Your task to perform on an android device: Show me popular games on the Play Store Image 0: 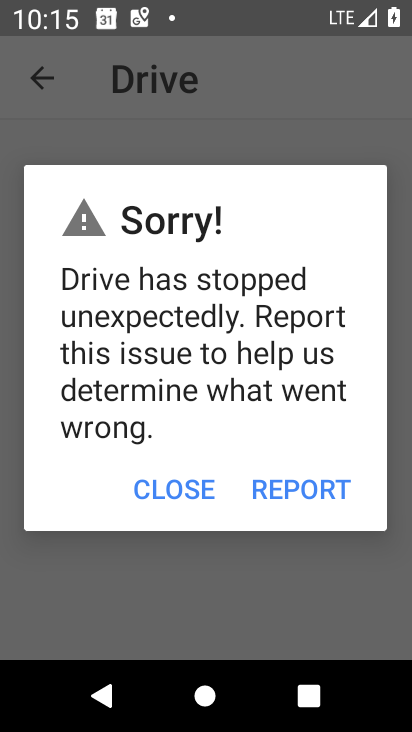
Step 0: press back button
Your task to perform on an android device: Show me popular games on the Play Store Image 1: 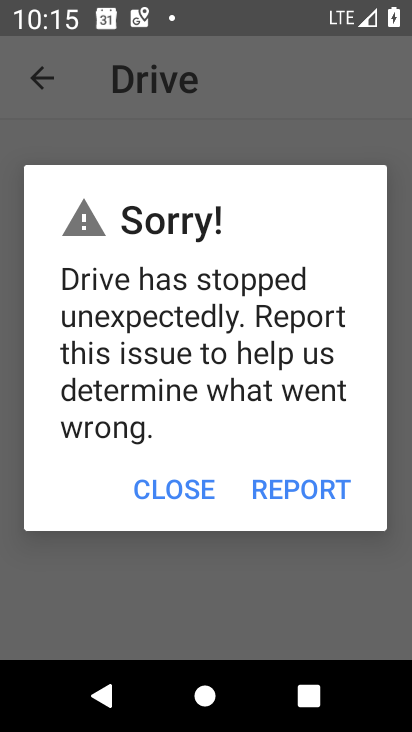
Step 1: press home button
Your task to perform on an android device: Show me popular games on the Play Store Image 2: 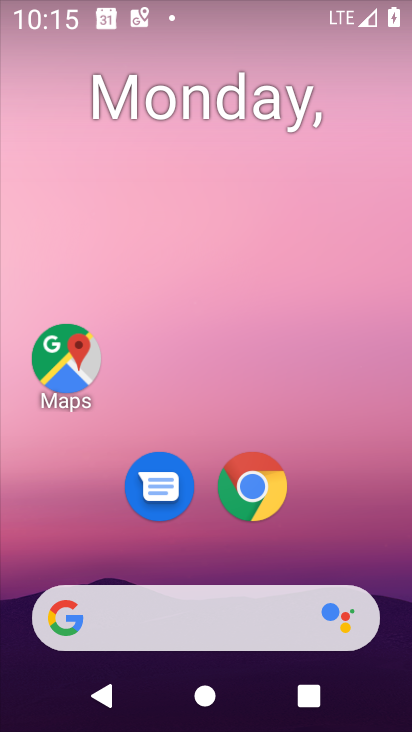
Step 2: drag from (384, 526) to (290, 42)
Your task to perform on an android device: Show me popular games on the Play Store Image 3: 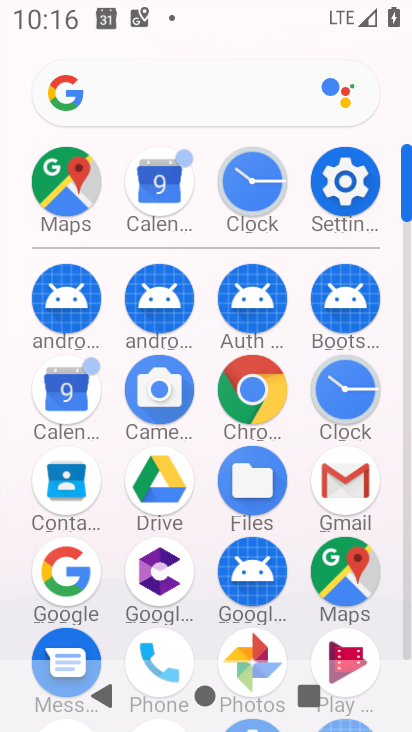
Step 3: drag from (19, 600) to (4, 210)
Your task to perform on an android device: Show me popular games on the Play Store Image 4: 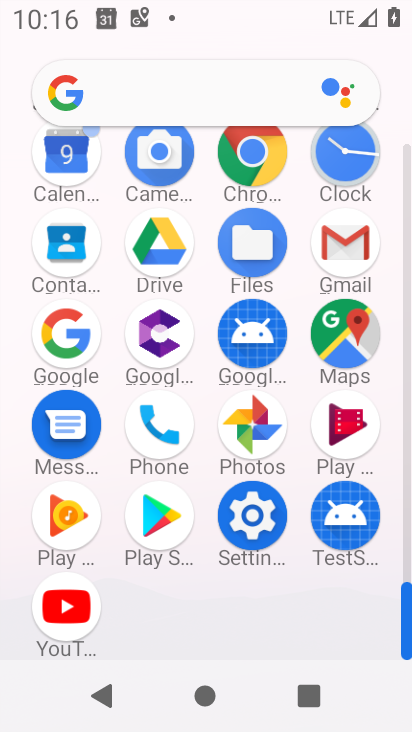
Step 4: drag from (18, 242) to (13, 525)
Your task to perform on an android device: Show me popular games on the Play Store Image 5: 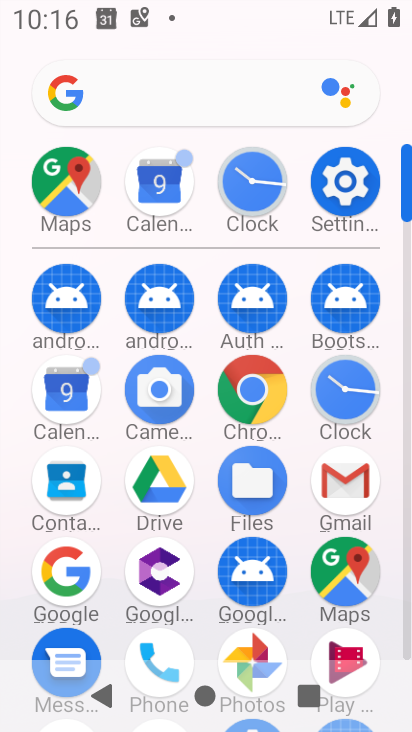
Step 5: drag from (12, 574) to (10, 317)
Your task to perform on an android device: Show me popular games on the Play Store Image 6: 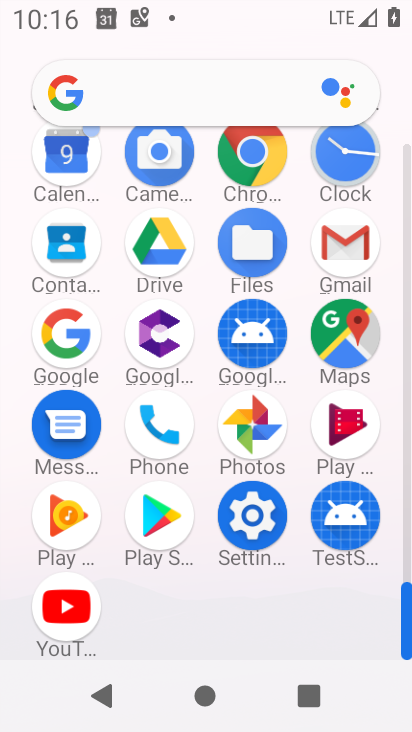
Step 6: click (161, 512)
Your task to perform on an android device: Show me popular games on the Play Store Image 7: 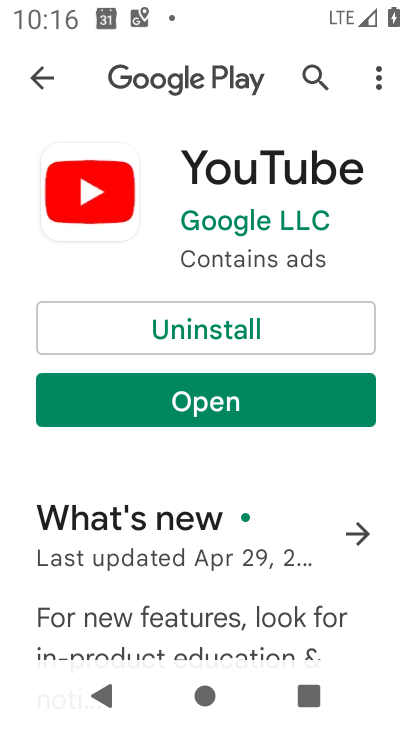
Step 7: click (21, 75)
Your task to perform on an android device: Show me popular games on the Play Store Image 8: 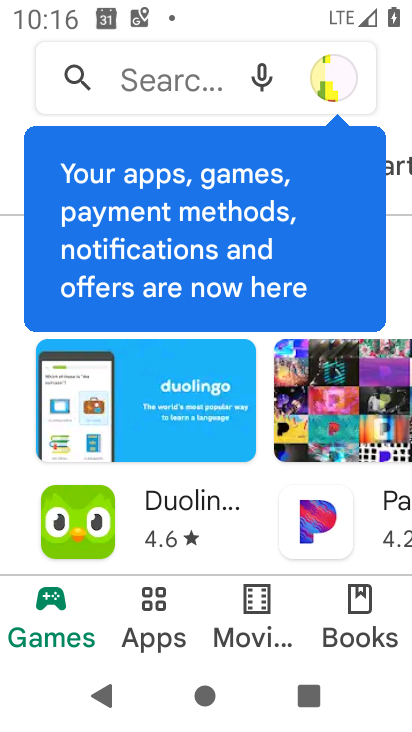
Step 8: drag from (128, 520) to (143, 203)
Your task to perform on an android device: Show me popular games on the Play Store Image 9: 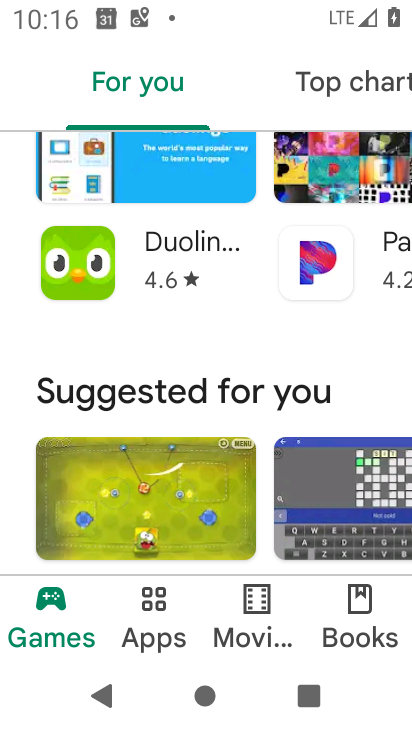
Step 9: drag from (285, 218) to (286, 473)
Your task to perform on an android device: Show me popular games on the Play Store Image 10: 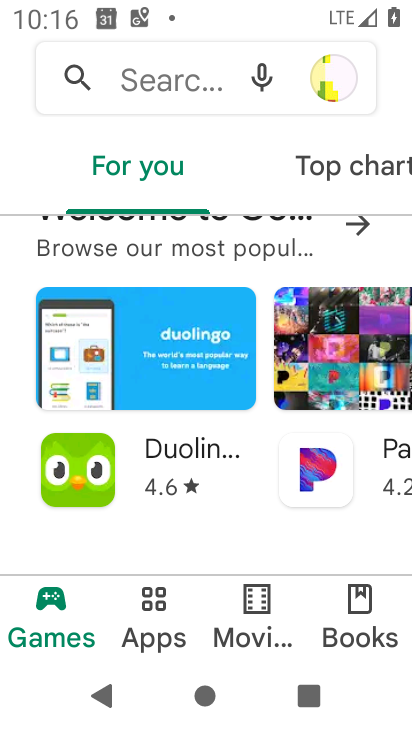
Step 10: drag from (347, 340) to (33, 372)
Your task to perform on an android device: Show me popular games on the Play Store Image 11: 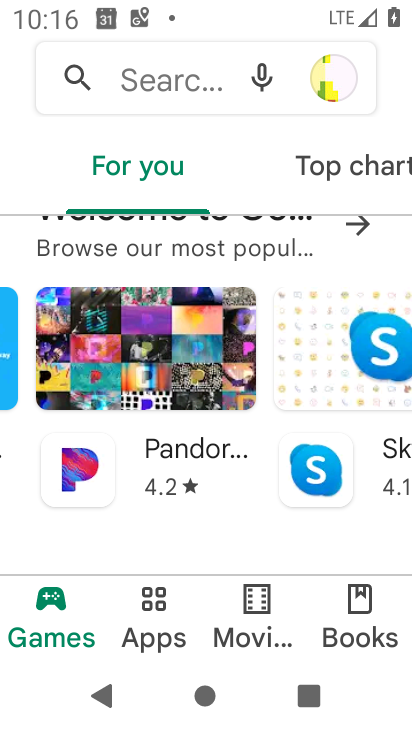
Step 11: drag from (355, 357) to (4, 366)
Your task to perform on an android device: Show me popular games on the Play Store Image 12: 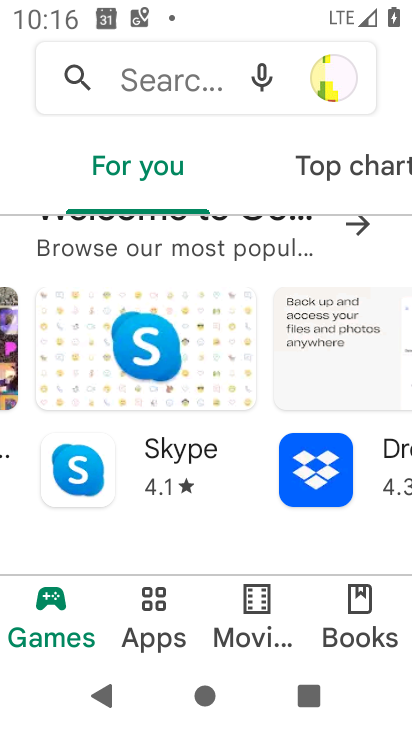
Step 12: drag from (260, 363) to (6, 362)
Your task to perform on an android device: Show me popular games on the Play Store Image 13: 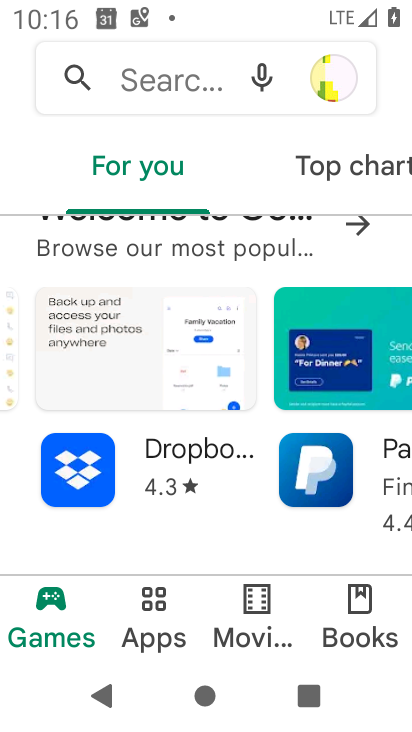
Step 13: drag from (90, 338) to (396, 353)
Your task to perform on an android device: Show me popular games on the Play Store Image 14: 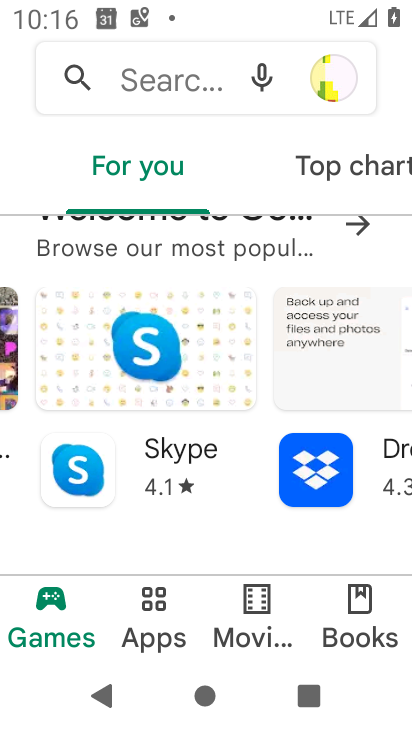
Step 14: drag from (71, 329) to (370, 313)
Your task to perform on an android device: Show me popular games on the Play Store Image 15: 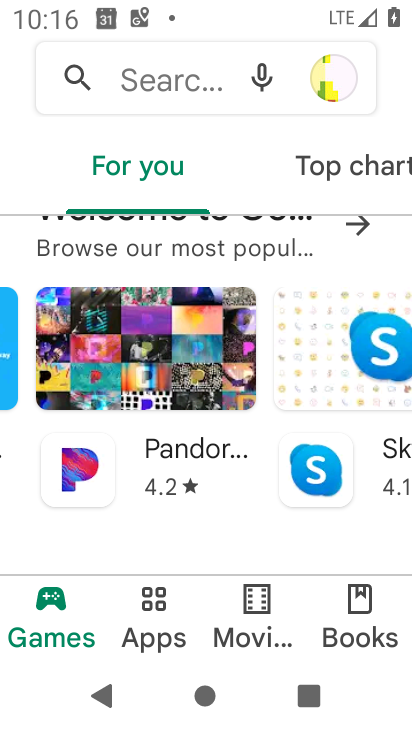
Step 15: drag from (237, 259) to (408, 440)
Your task to perform on an android device: Show me popular games on the Play Store Image 16: 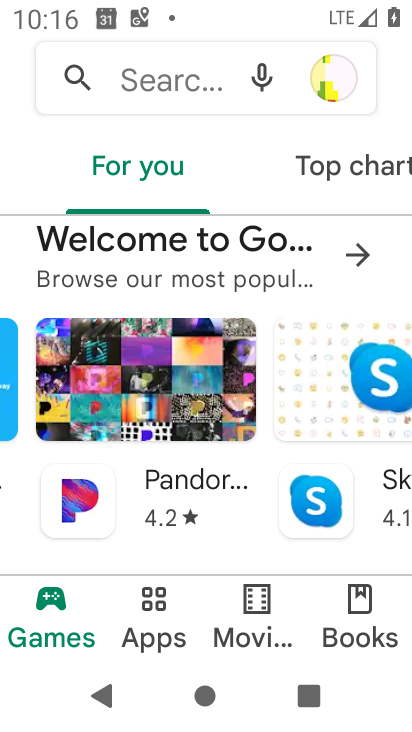
Step 16: click (251, 281)
Your task to perform on an android device: Show me popular games on the Play Store Image 17: 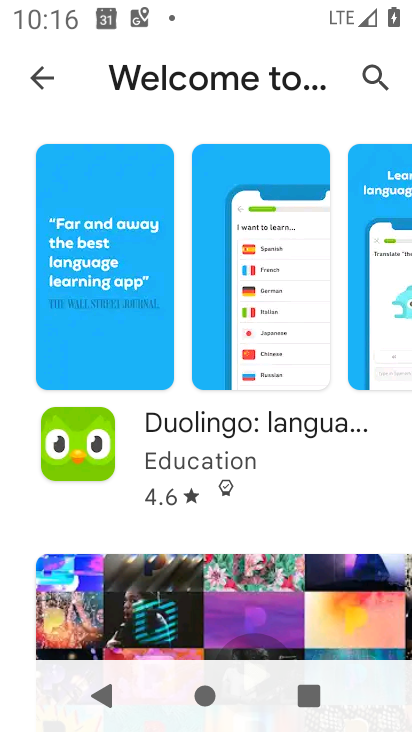
Step 17: task complete